Your task to perform on an android device: Do I have any events this weekend? Image 0: 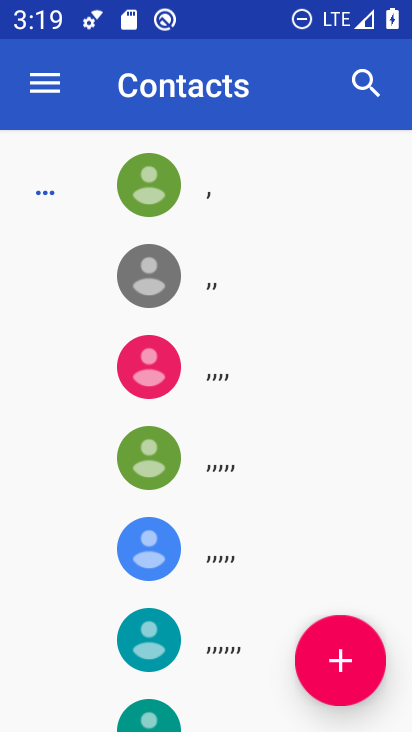
Step 0: press home button
Your task to perform on an android device: Do I have any events this weekend? Image 1: 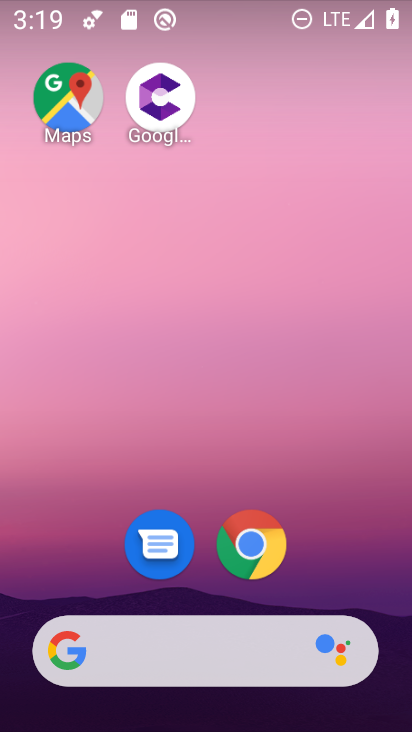
Step 1: drag from (337, 571) to (340, 168)
Your task to perform on an android device: Do I have any events this weekend? Image 2: 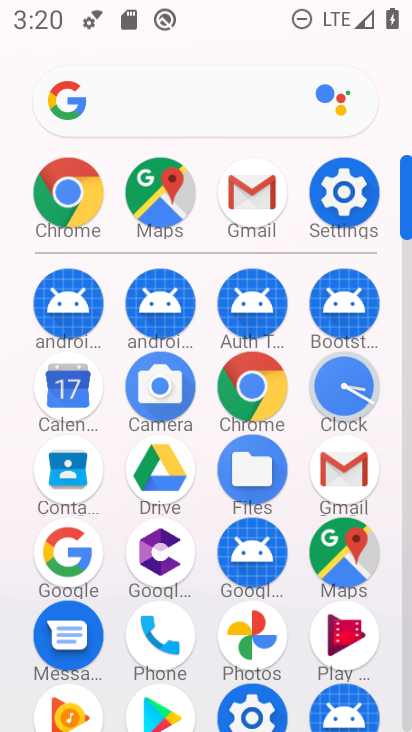
Step 2: click (64, 392)
Your task to perform on an android device: Do I have any events this weekend? Image 3: 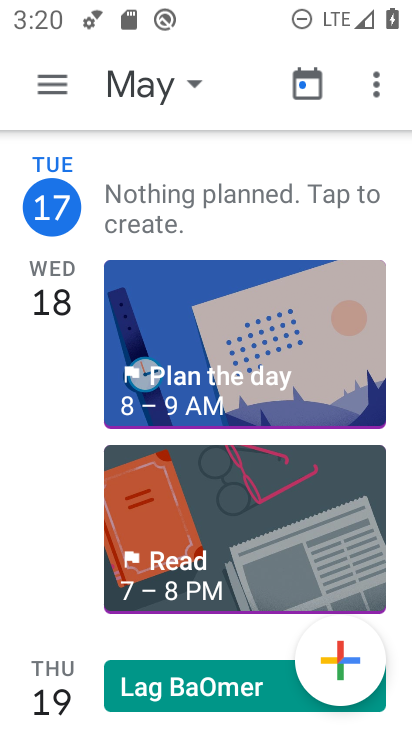
Step 3: drag from (240, 575) to (241, 385)
Your task to perform on an android device: Do I have any events this weekend? Image 4: 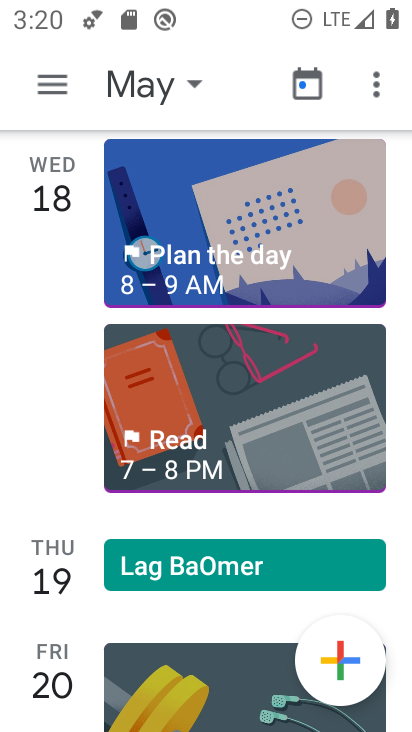
Step 4: drag from (251, 629) to (251, 399)
Your task to perform on an android device: Do I have any events this weekend? Image 5: 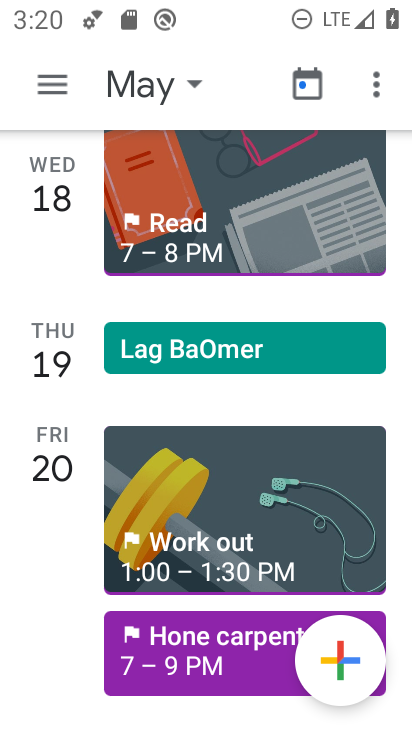
Step 5: drag from (253, 636) to (235, 417)
Your task to perform on an android device: Do I have any events this weekend? Image 6: 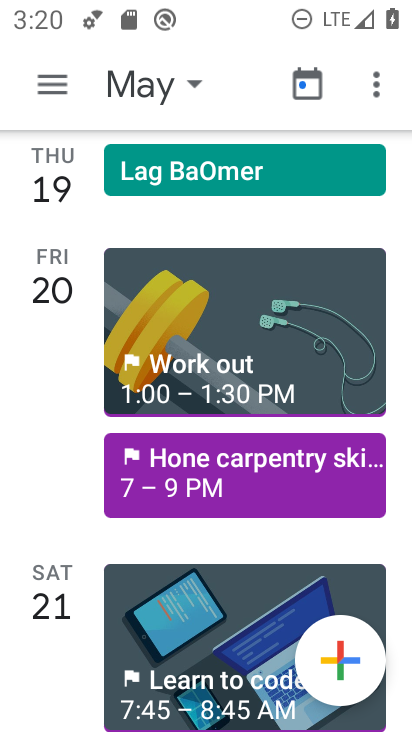
Step 6: drag from (223, 620) to (223, 420)
Your task to perform on an android device: Do I have any events this weekend? Image 7: 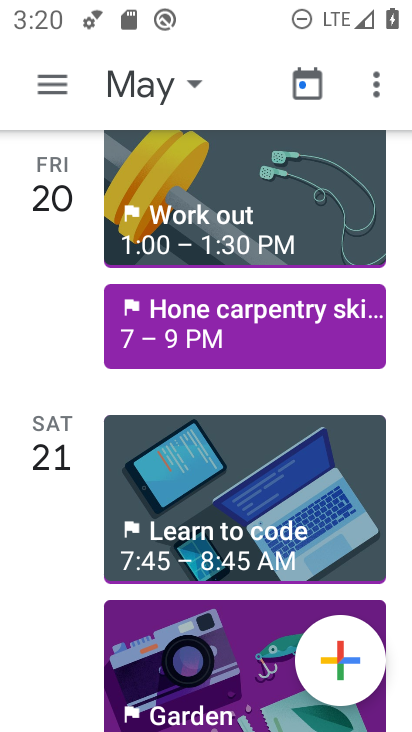
Step 7: click (234, 513)
Your task to perform on an android device: Do I have any events this weekend? Image 8: 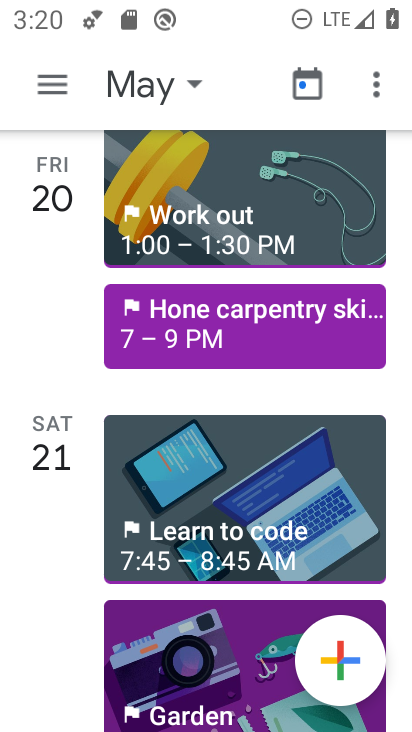
Step 8: task complete